Your task to perform on an android device: create a new album in the google photos Image 0: 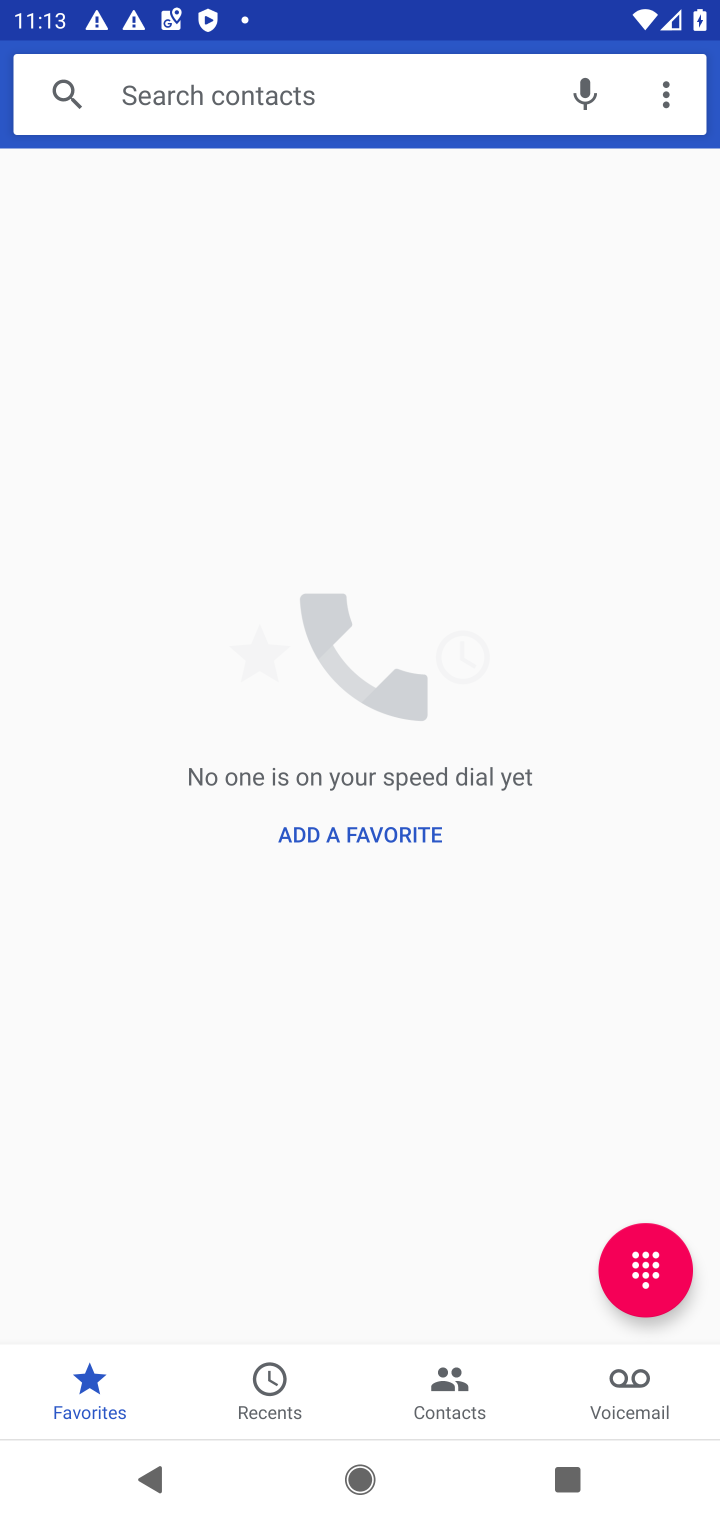
Step 0: press home button
Your task to perform on an android device: create a new album in the google photos Image 1: 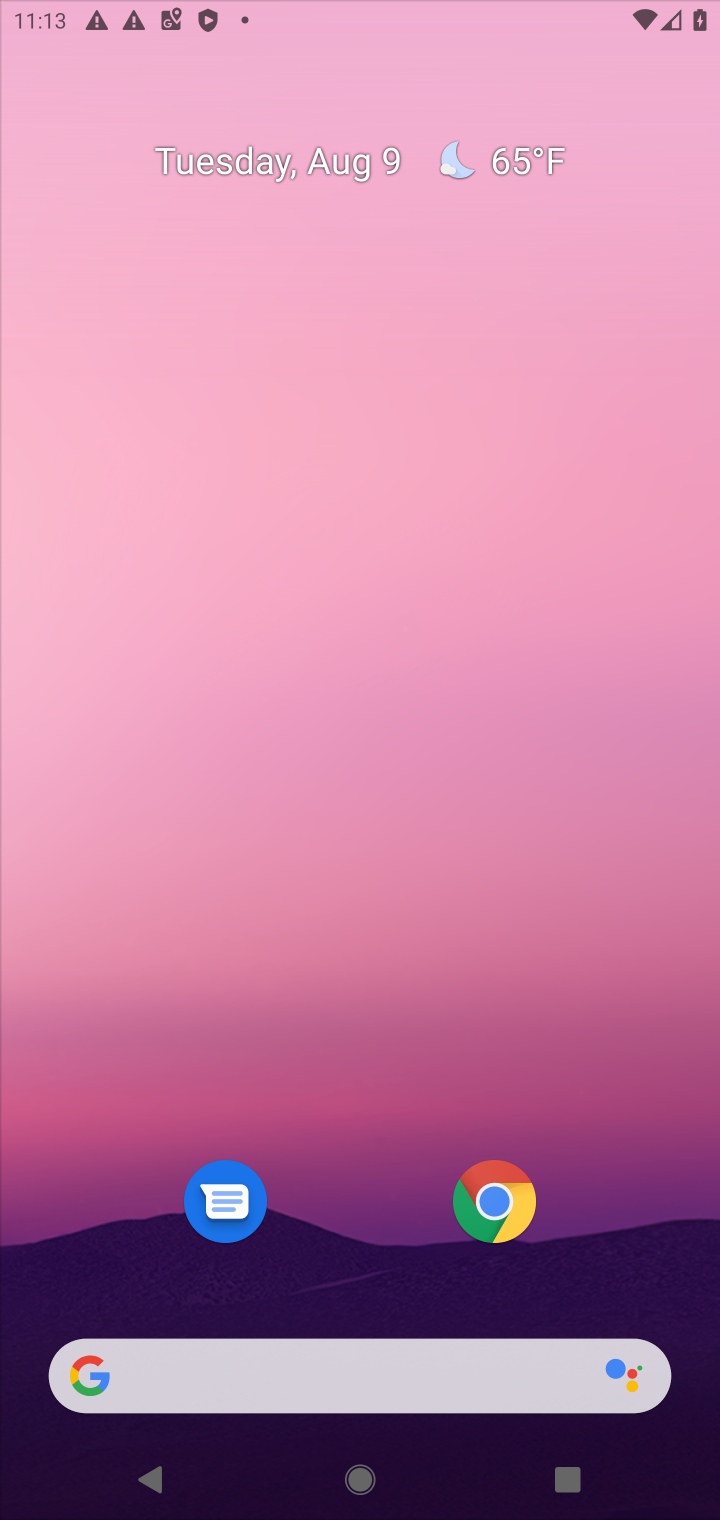
Step 1: press home button
Your task to perform on an android device: create a new album in the google photos Image 2: 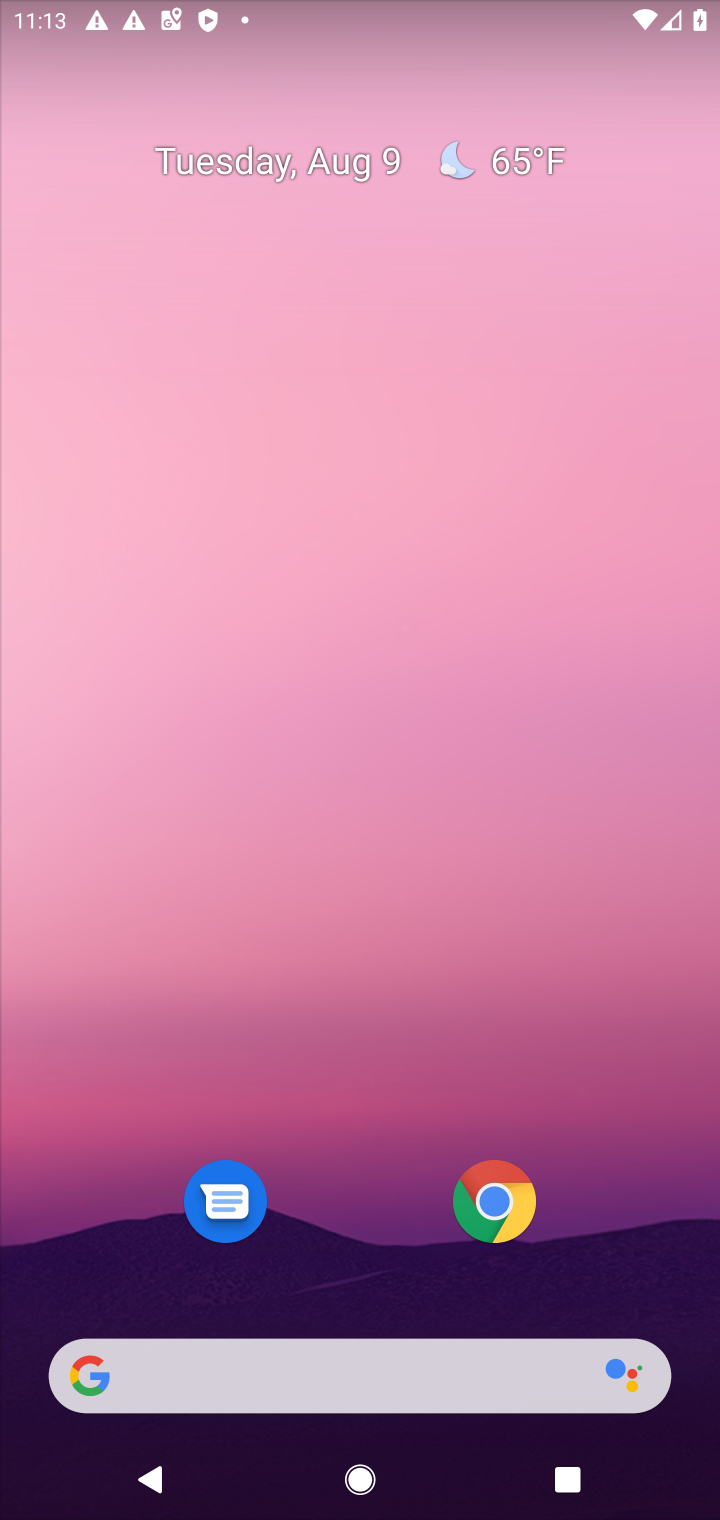
Step 2: drag from (396, 1050) to (430, 205)
Your task to perform on an android device: create a new album in the google photos Image 3: 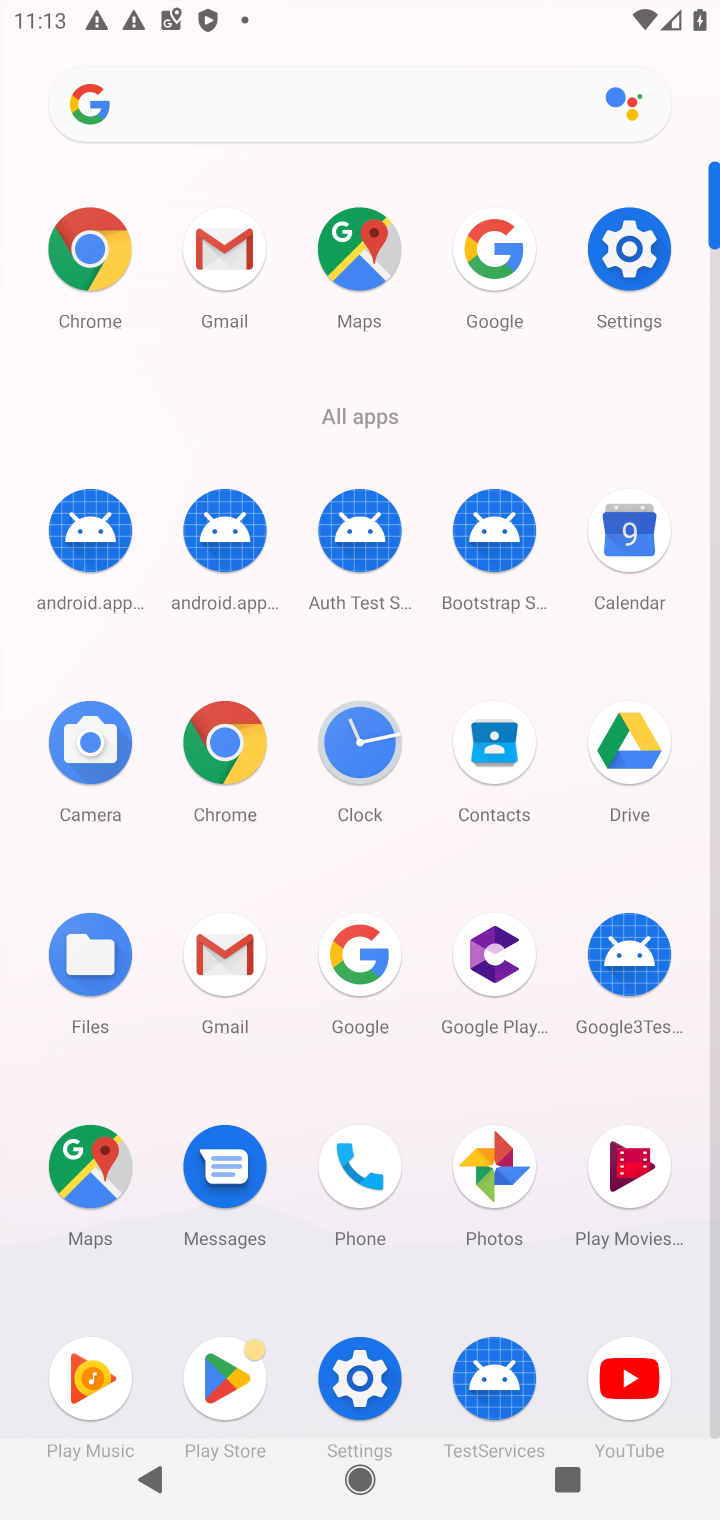
Step 3: click (499, 1158)
Your task to perform on an android device: create a new album in the google photos Image 4: 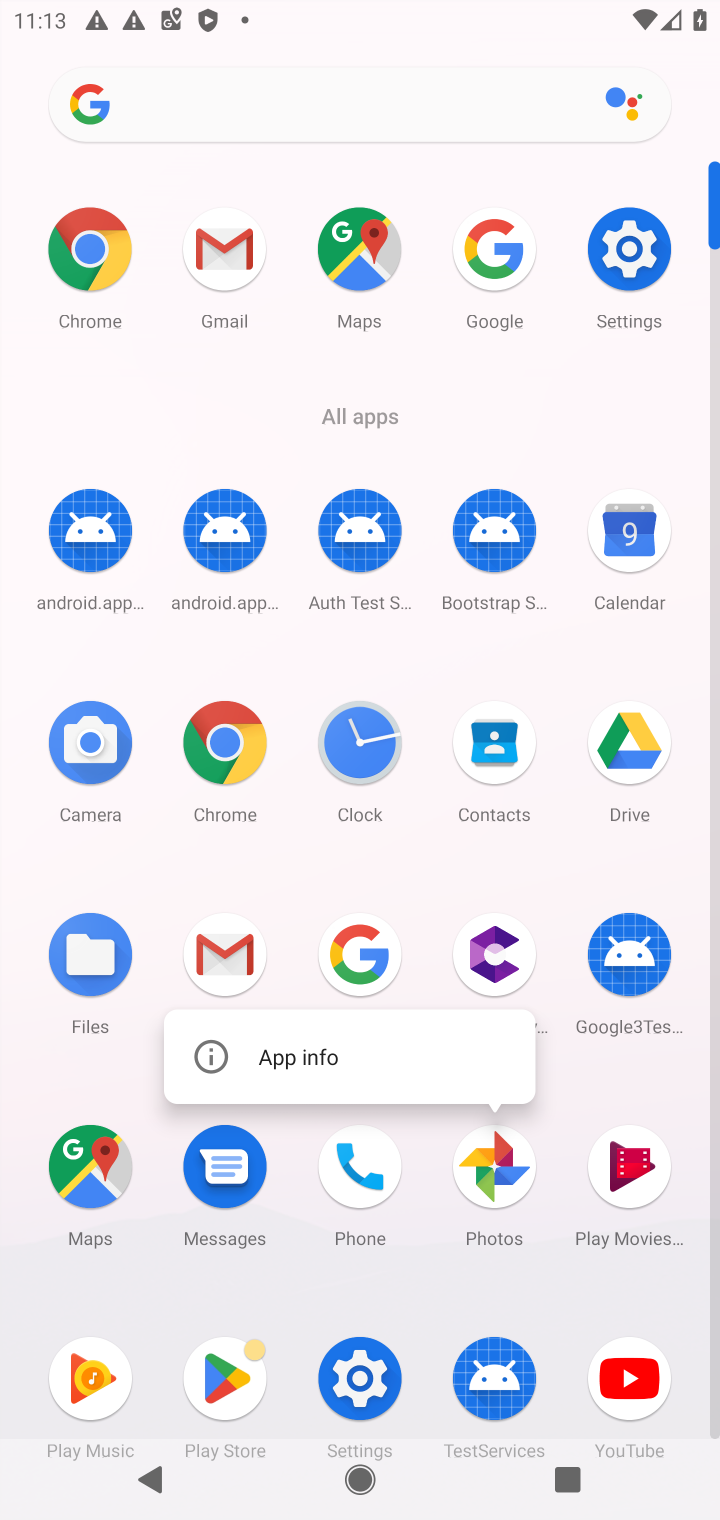
Step 4: click (489, 1154)
Your task to perform on an android device: create a new album in the google photos Image 5: 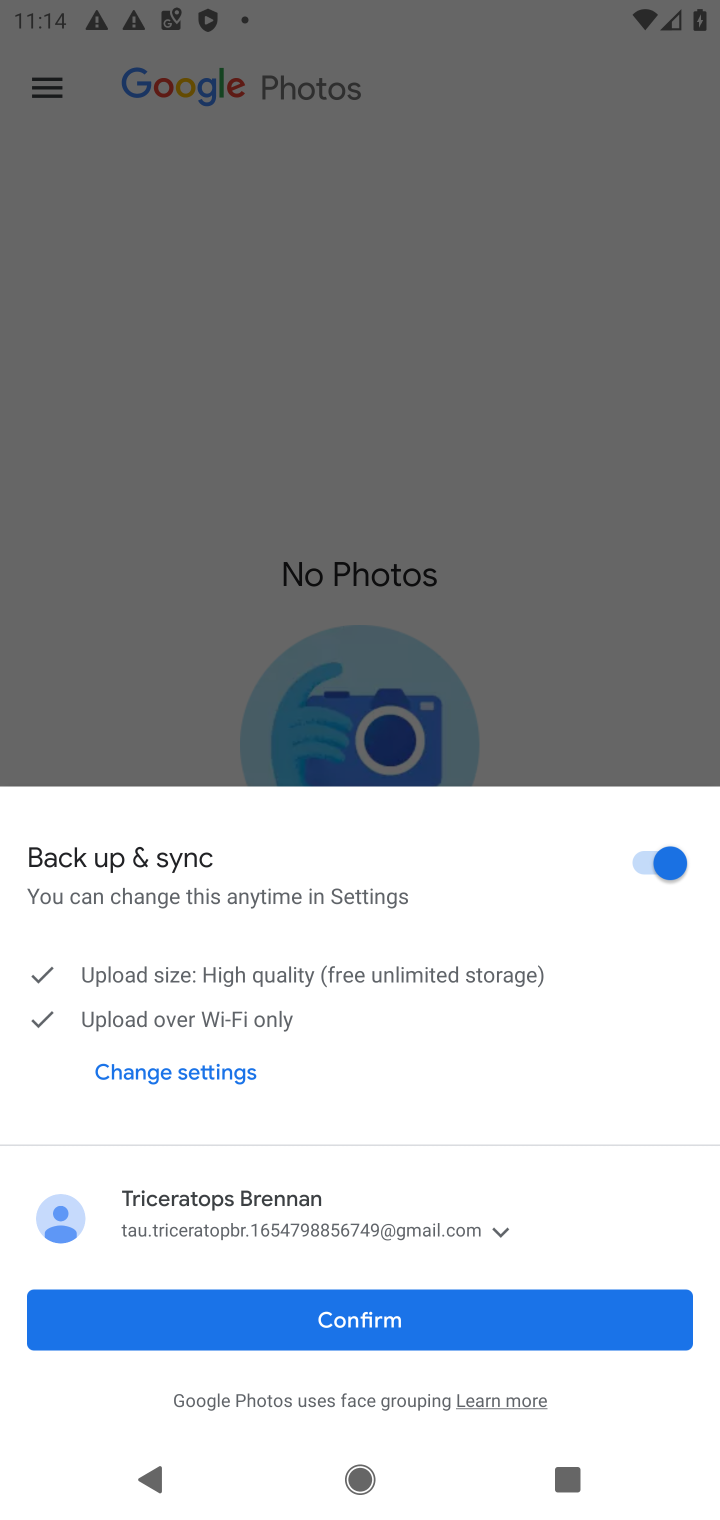
Step 5: click (397, 1333)
Your task to perform on an android device: create a new album in the google photos Image 6: 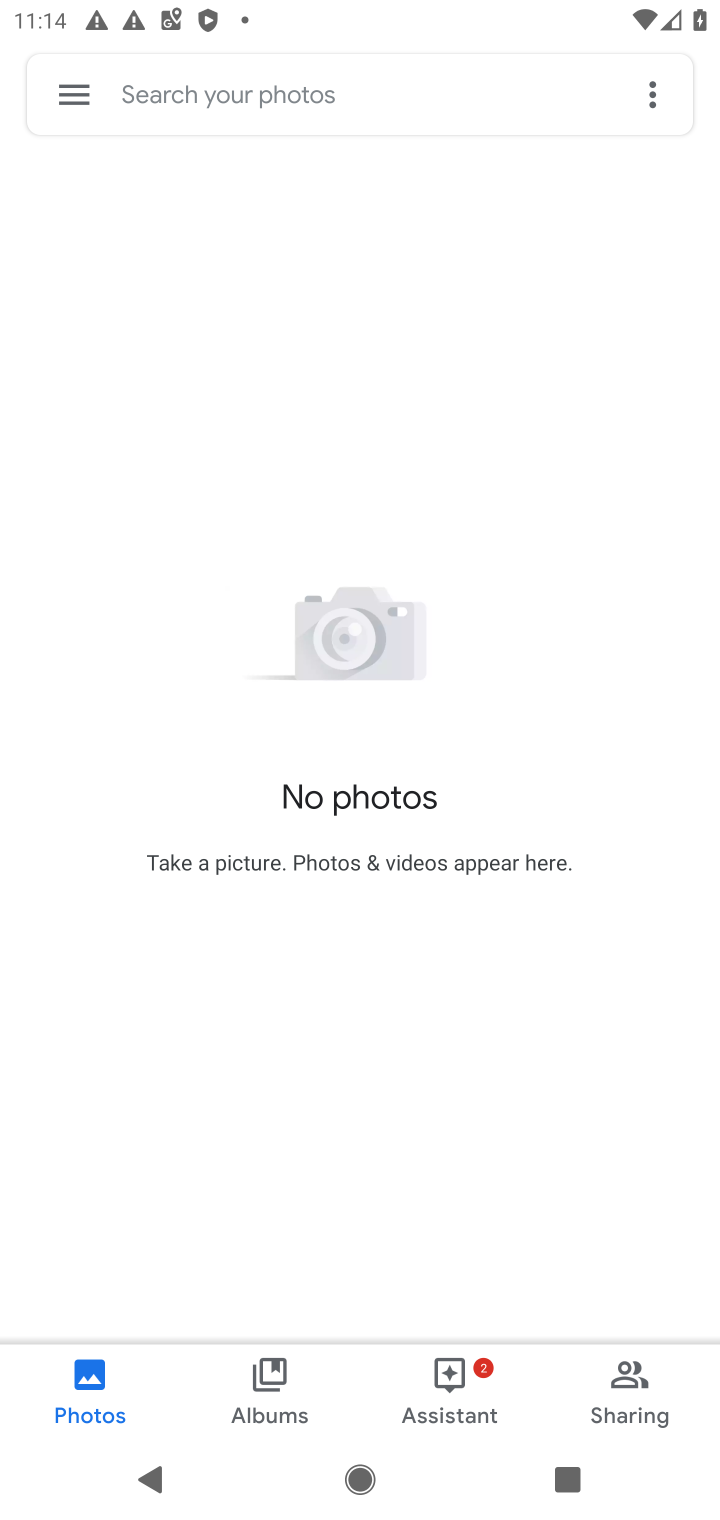
Step 6: task complete